Your task to perform on an android device: Do I have any events this weekend? Image 0: 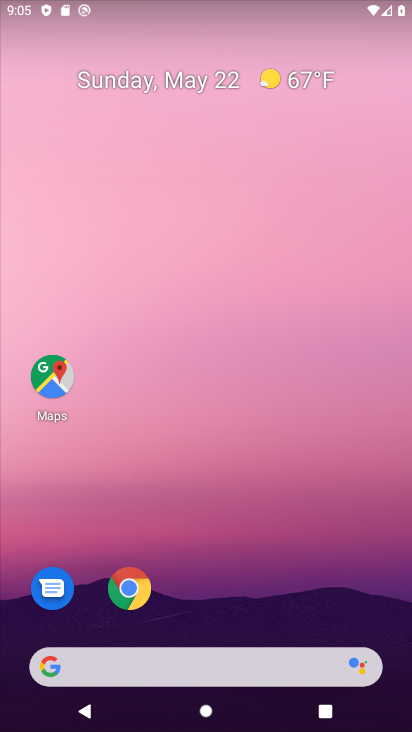
Step 0: drag from (186, 624) to (207, 116)
Your task to perform on an android device: Do I have any events this weekend? Image 1: 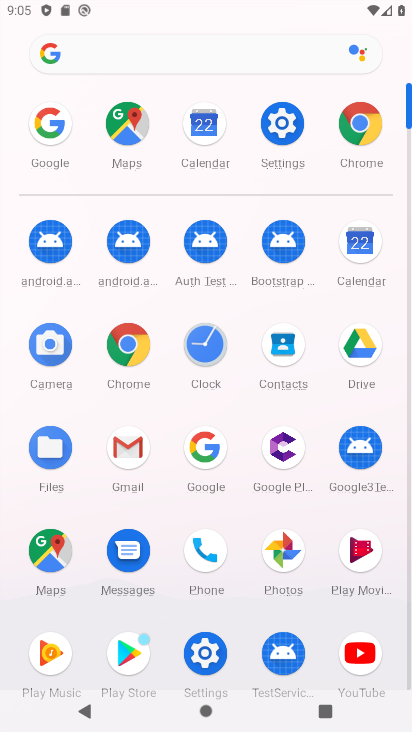
Step 1: click (358, 235)
Your task to perform on an android device: Do I have any events this weekend? Image 2: 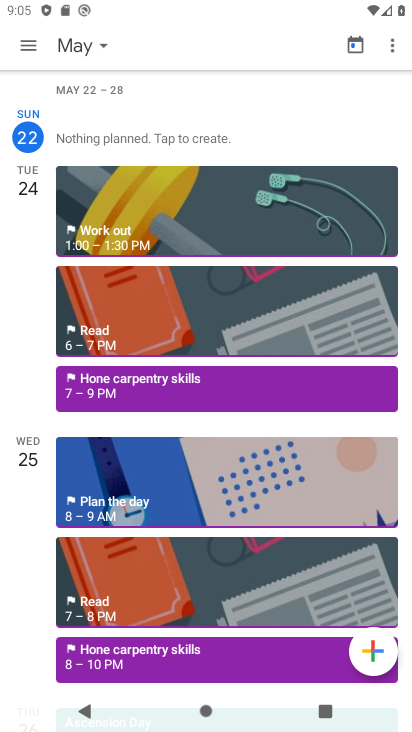
Step 2: click (105, 46)
Your task to perform on an android device: Do I have any events this weekend? Image 3: 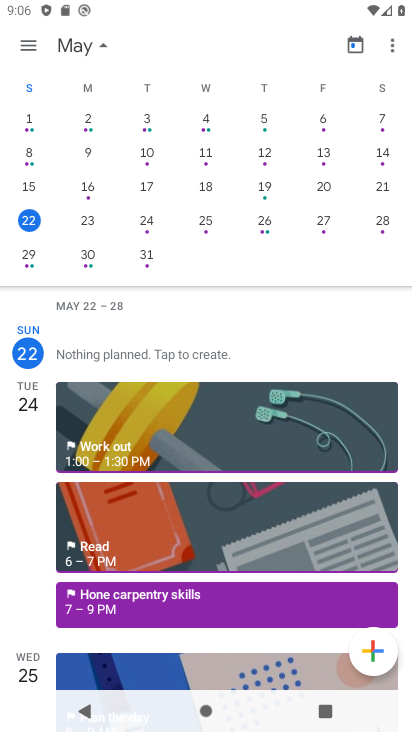
Step 3: click (373, 215)
Your task to perform on an android device: Do I have any events this weekend? Image 4: 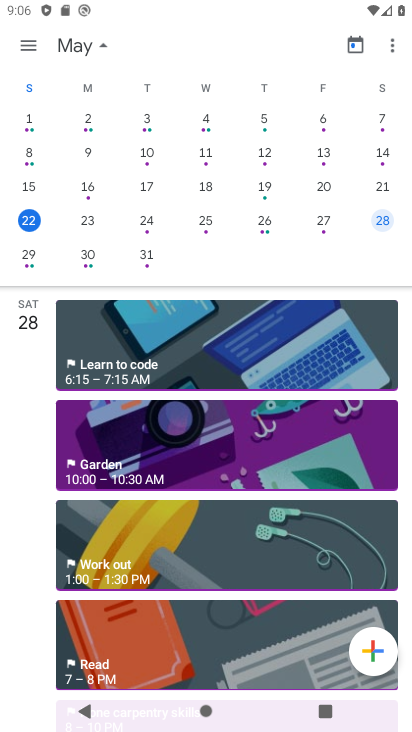
Step 4: task complete